Your task to perform on an android device: Search for sushi restaurants on Maps Image 0: 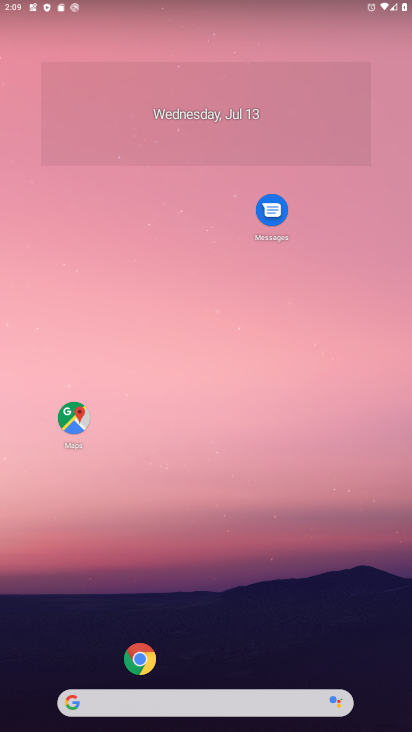
Step 0: drag from (15, 693) to (310, 171)
Your task to perform on an android device: Search for sushi restaurants on Maps Image 1: 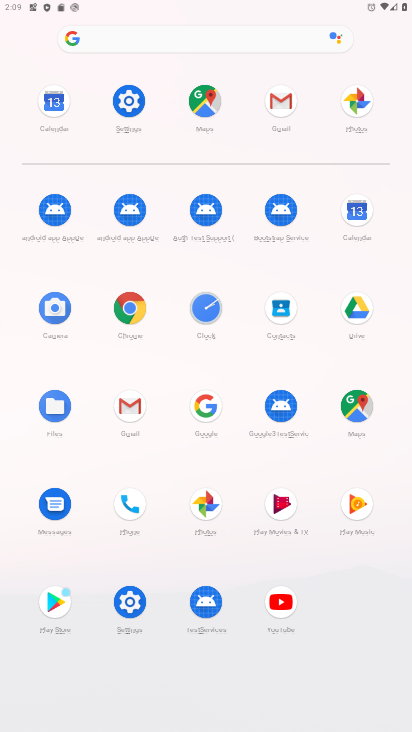
Step 1: click (360, 409)
Your task to perform on an android device: Search for sushi restaurants on Maps Image 2: 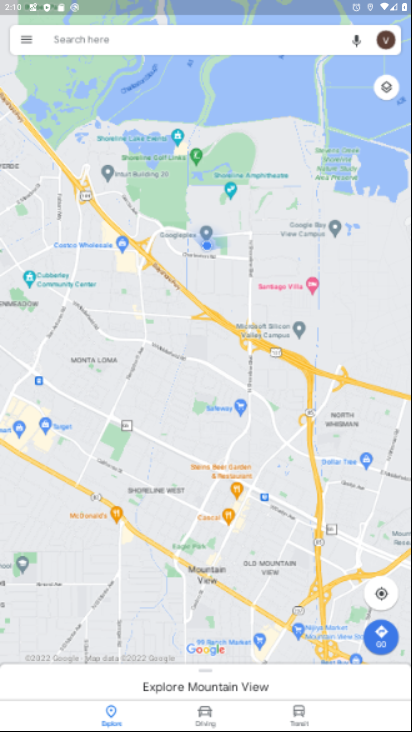
Step 2: click (68, 44)
Your task to perform on an android device: Search for sushi restaurants on Maps Image 3: 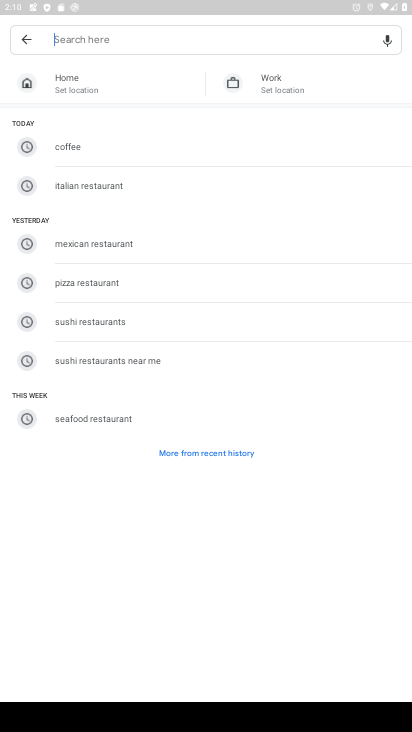
Step 3: type "sushi restaurants"
Your task to perform on an android device: Search for sushi restaurants on Maps Image 4: 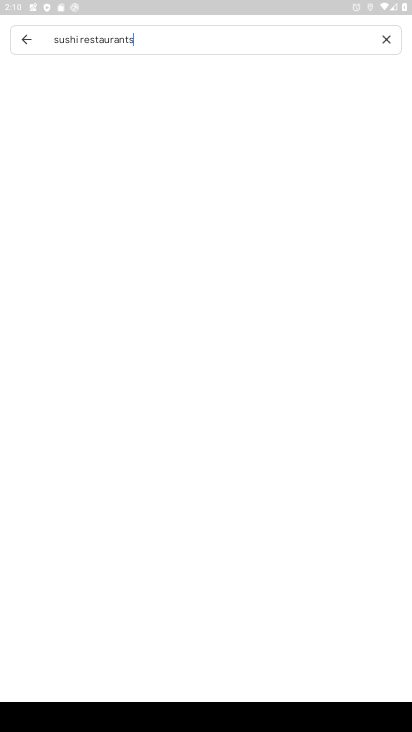
Step 4: type ""
Your task to perform on an android device: Search for sushi restaurants on Maps Image 5: 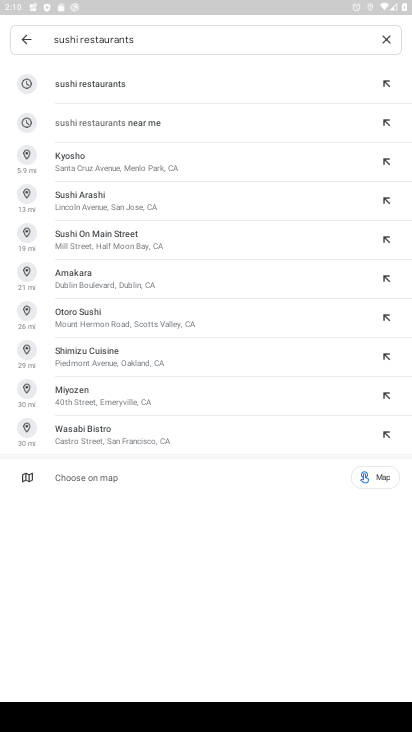
Step 5: click (97, 86)
Your task to perform on an android device: Search for sushi restaurants on Maps Image 6: 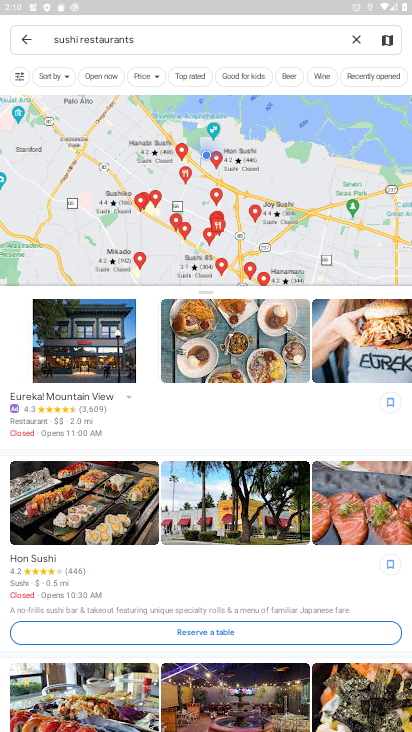
Step 6: task complete